Your task to perform on an android device: toggle location history Image 0: 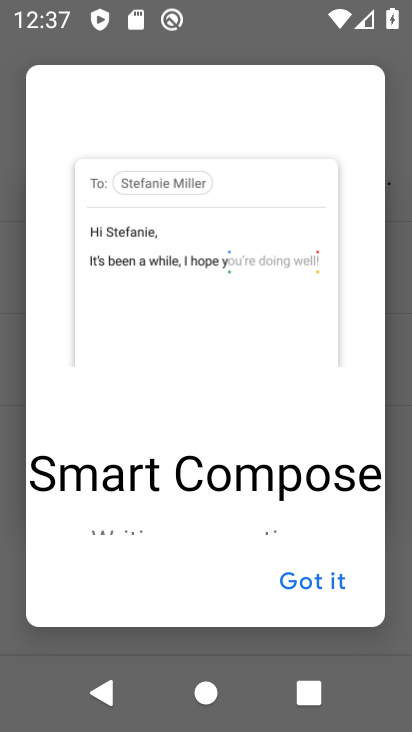
Step 0: press home button
Your task to perform on an android device: toggle location history Image 1: 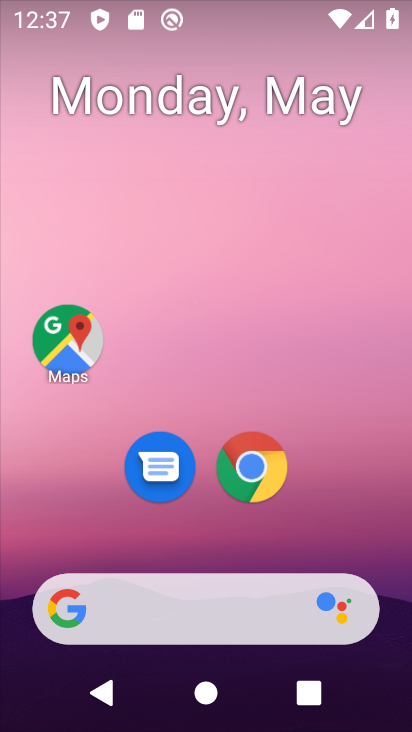
Step 1: drag from (353, 545) to (326, 123)
Your task to perform on an android device: toggle location history Image 2: 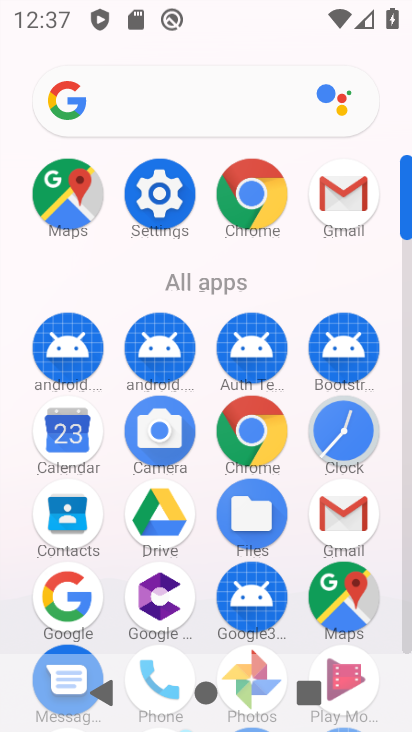
Step 2: press home button
Your task to perform on an android device: toggle location history Image 3: 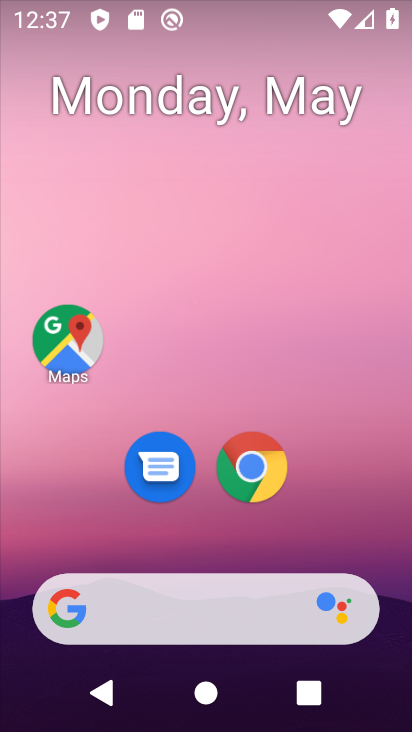
Step 3: drag from (403, 526) to (341, 152)
Your task to perform on an android device: toggle location history Image 4: 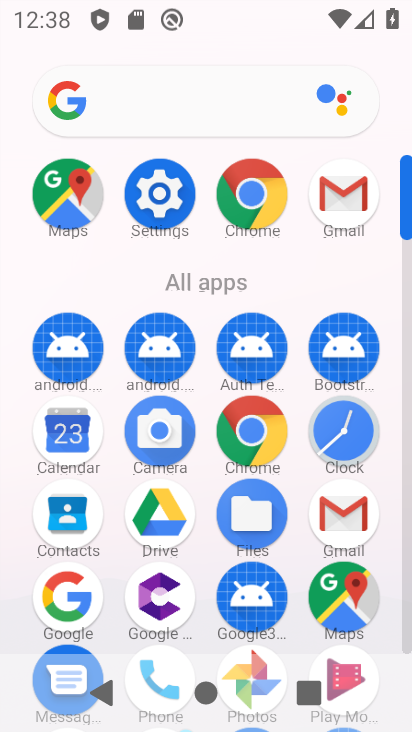
Step 4: click (345, 604)
Your task to perform on an android device: toggle location history Image 5: 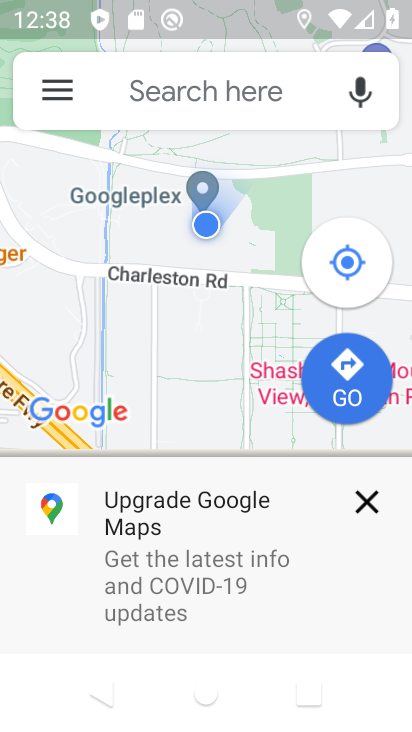
Step 5: click (56, 93)
Your task to perform on an android device: toggle location history Image 6: 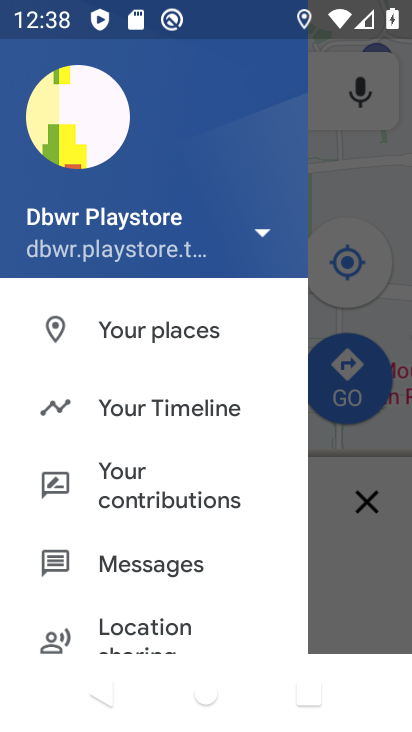
Step 6: click (98, 403)
Your task to perform on an android device: toggle location history Image 7: 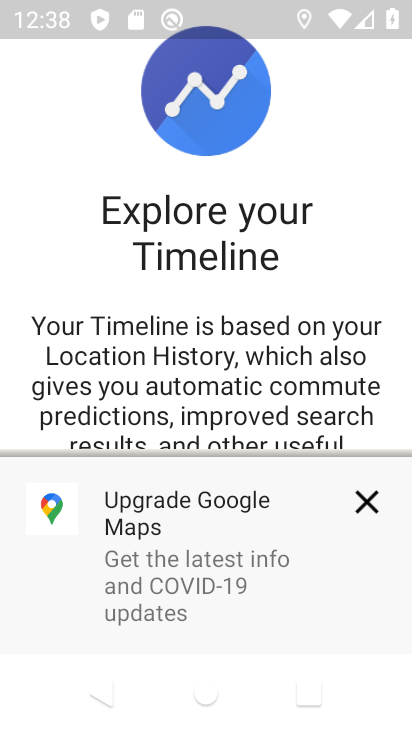
Step 7: click (360, 508)
Your task to perform on an android device: toggle location history Image 8: 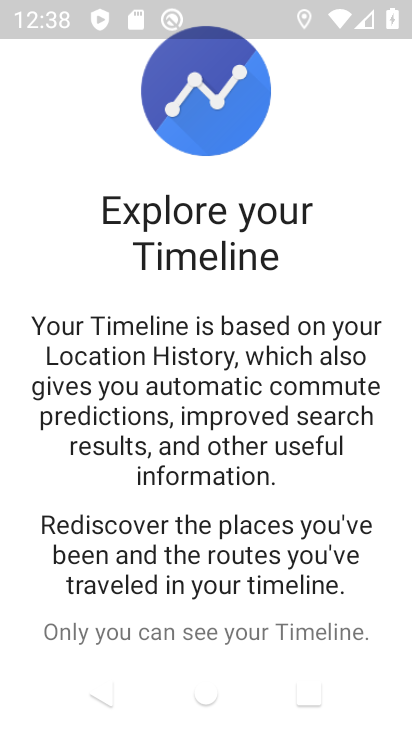
Step 8: drag from (309, 546) to (319, 199)
Your task to perform on an android device: toggle location history Image 9: 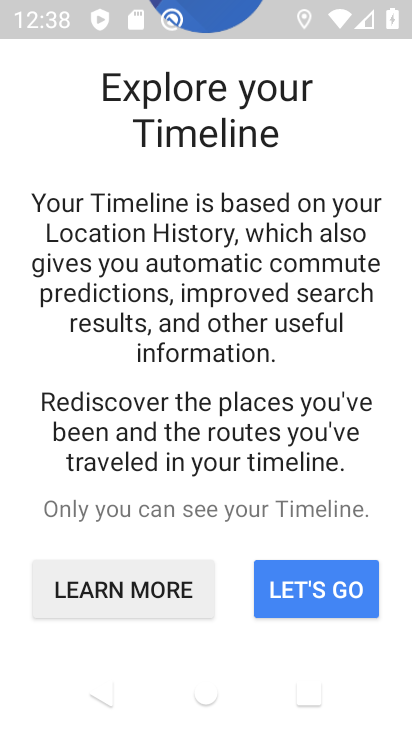
Step 9: click (304, 598)
Your task to perform on an android device: toggle location history Image 10: 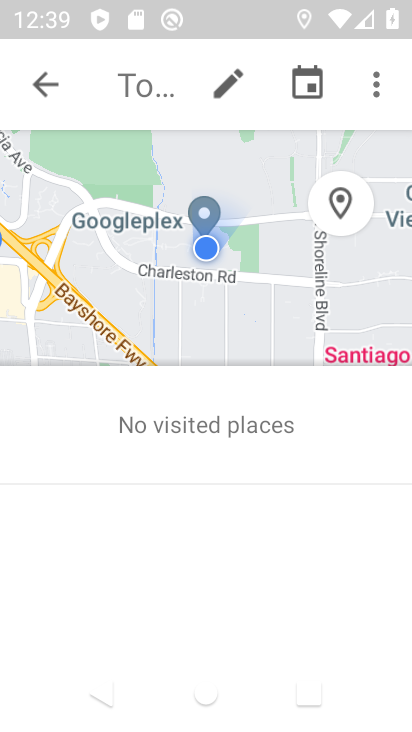
Step 10: click (368, 83)
Your task to perform on an android device: toggle location history Image 11: 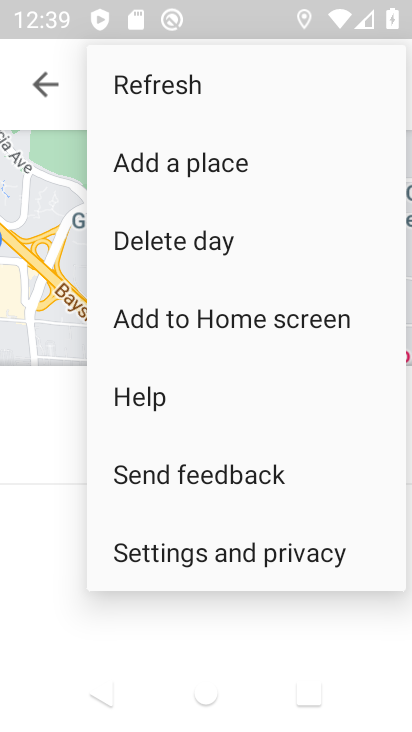
Step 11: click (317, 554)
Your task to perform on an android device: toggle location history Image 12: 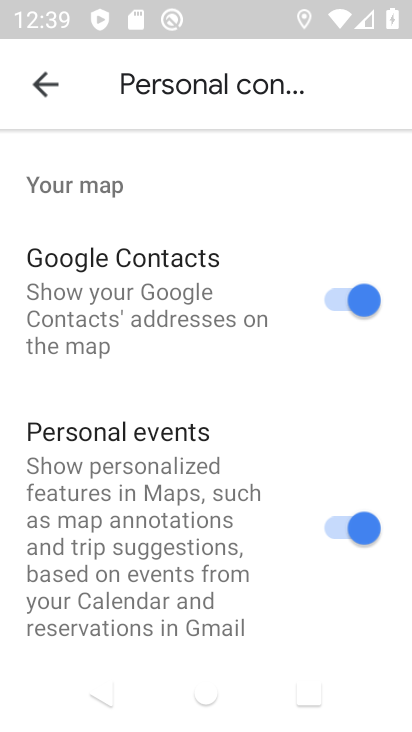
Step 12: drag from (163, 527) to (181, 207)
Your task to perform on an android device: toggle location history Image 13: 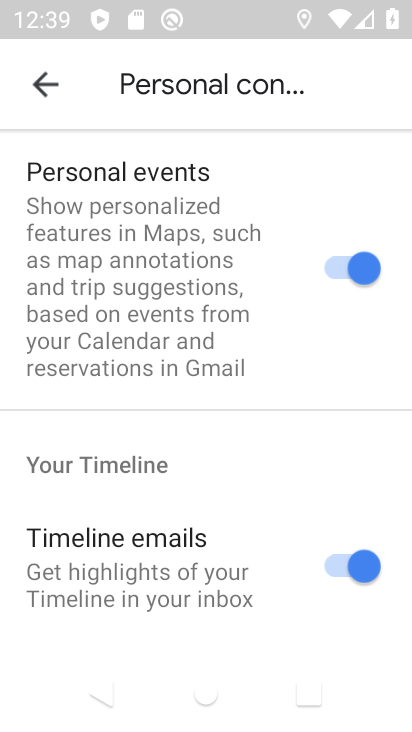
Step 13: drag from (207, 598) to (227, 210)
Your task to perform on an android device: toggle location history Image 14: 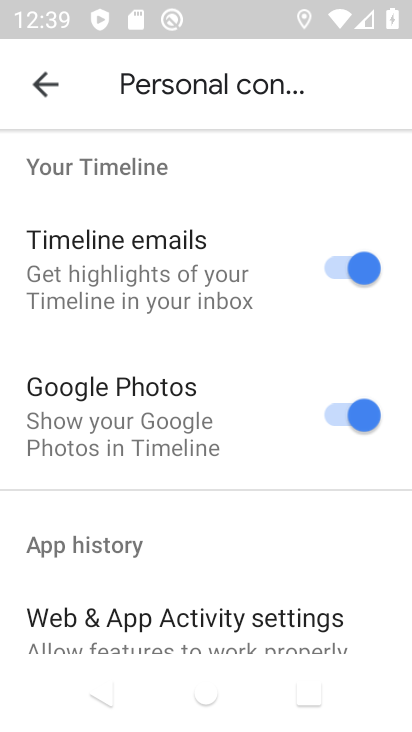
Step 14: drag from (215, 476) to (246, 195)
Your task to perform on an android device: toggle location history Image 15: 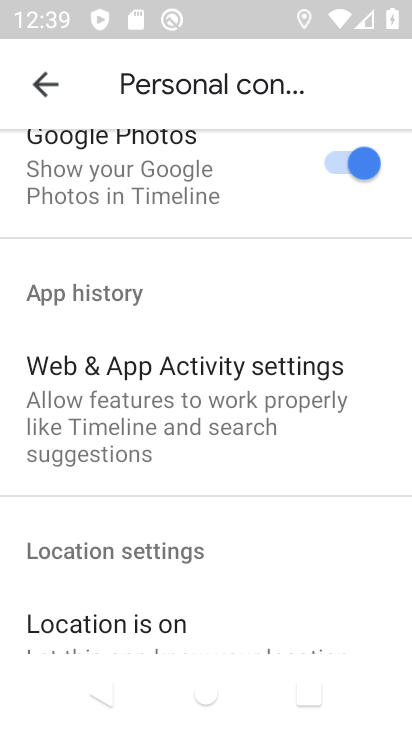
Step 15: drag from (236, 591) to (248, 323)
Your task to perform on an android device: toggle location history Image 16: 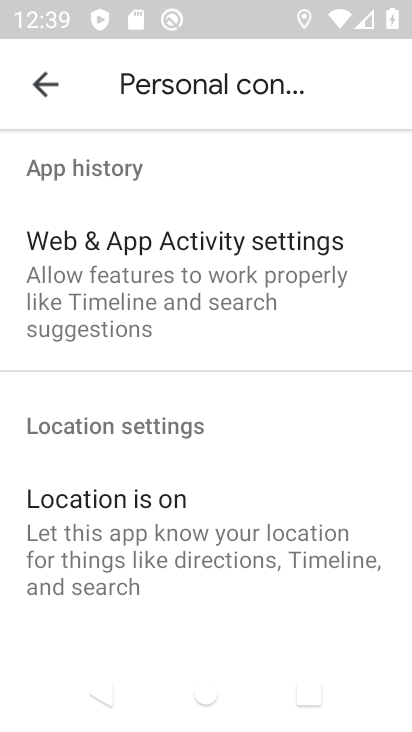
Step 16: drag from (220, 530) to (242, 249)
Your task to perform on an android device: toggle location history Image 17: 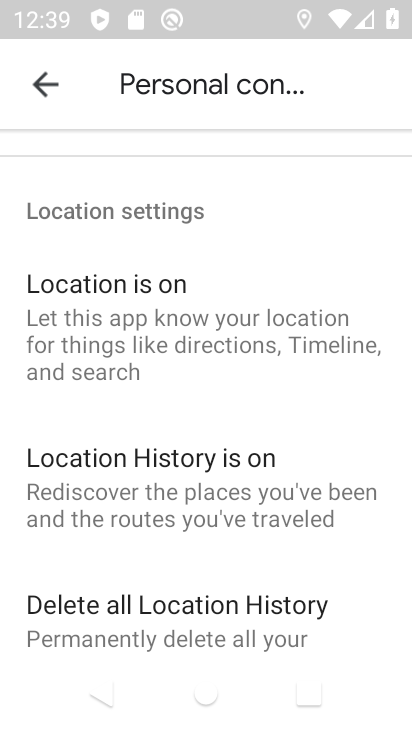
Step 17: click (226, 529)
Your task to perform on an android device: toggle location history Image 18: 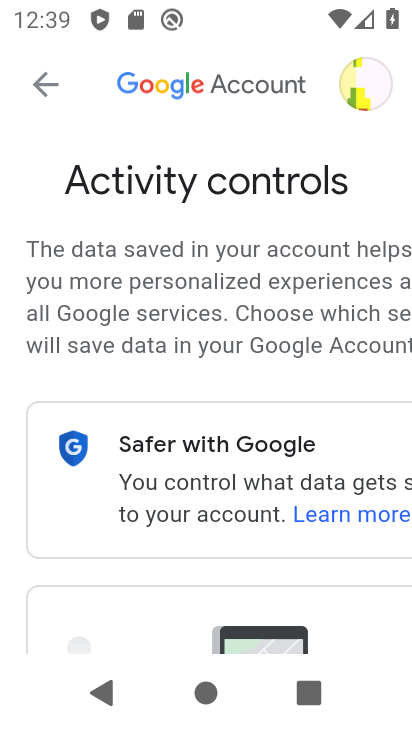
Step 18: click (293, 597)
Your task to perform on an android device: toggle location history Image 19: 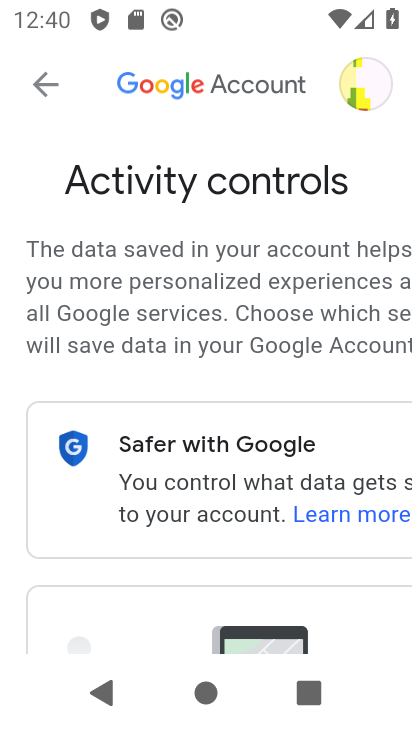
Step 19: drag from (371, 610) to (56, 119)
Your task to perform on an android device: toggle location history Image 20: 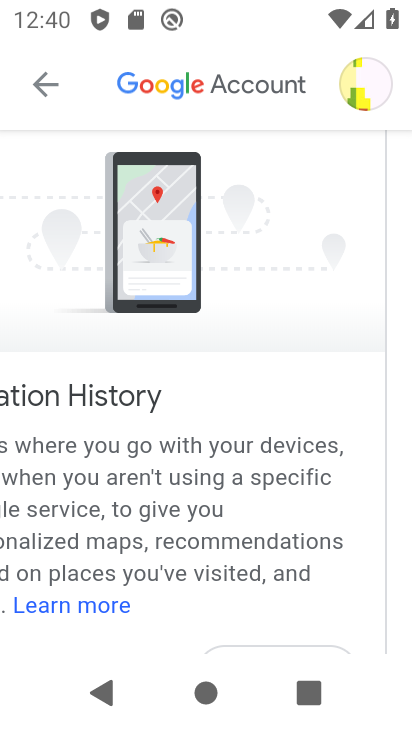
Step 20: drag from (290, 578) to (311, 249)
Your task to perform on an android device: toggle location history Image 21: 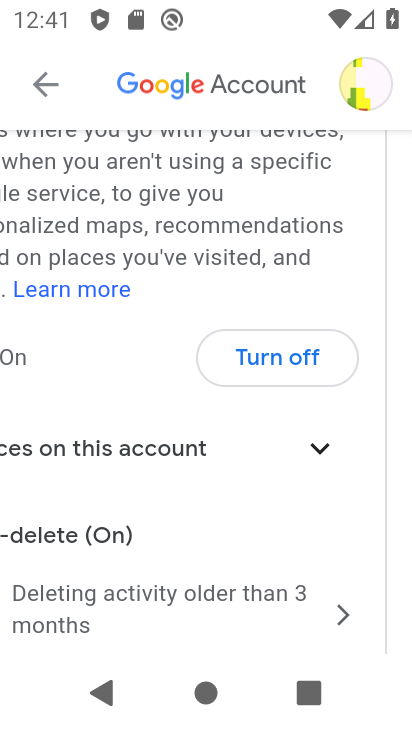
Step 21: click (269, 360)
Your task to perform on an android device: toggle location history Image 22: 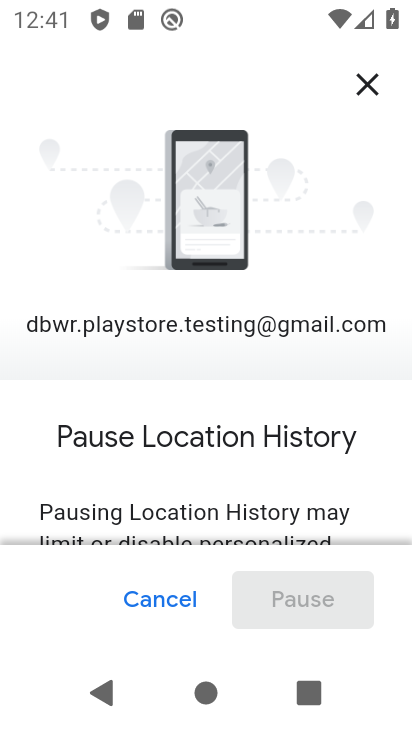
Step 22: drag from (301, 515) to (325, 35)
Your task to perform on an android device: toggle location history Image 23: 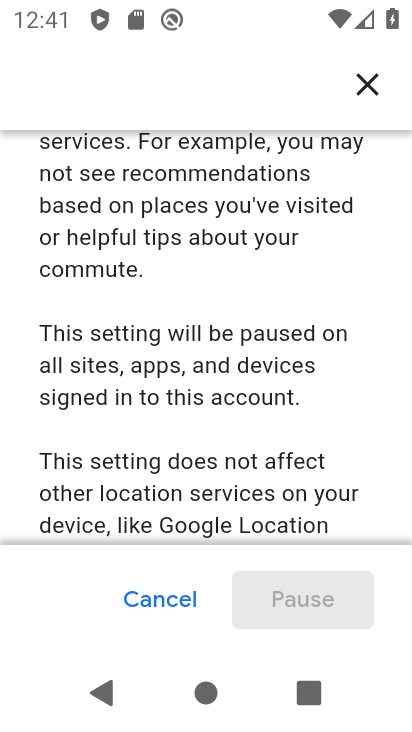
Step 23: drag from (323, 375) to (334, 91)
Your task to perform on an android device: toggle location history Image 24: 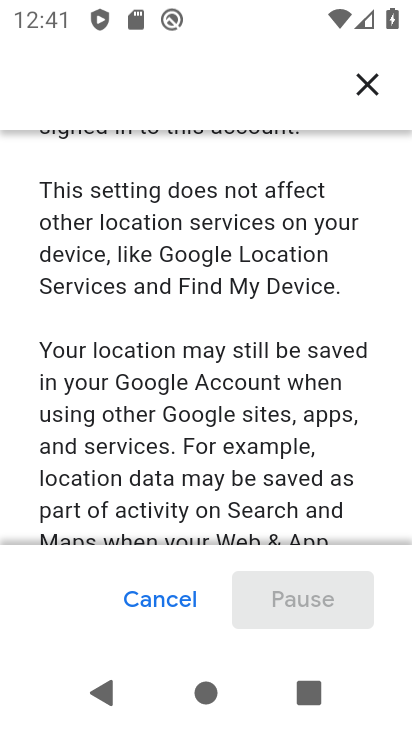
Step 24: drag from (335, 485) to (369, 96)
Your task to perform on an android device: toggle location history Image 25: 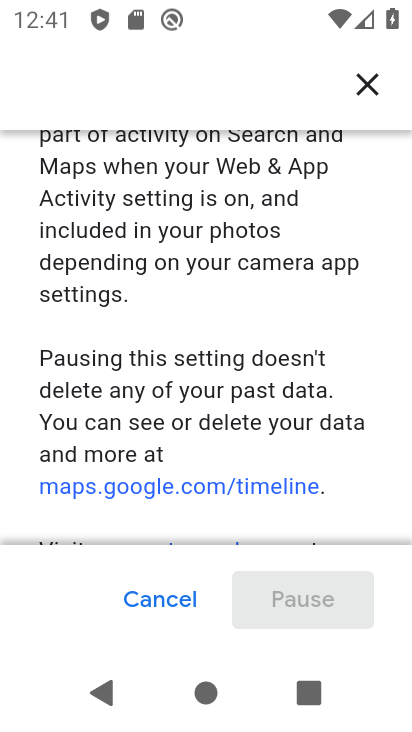
Step 25: drag from (345, 462) to (377, 130)
Your task to perform on an android device: toggle location history Image 26: 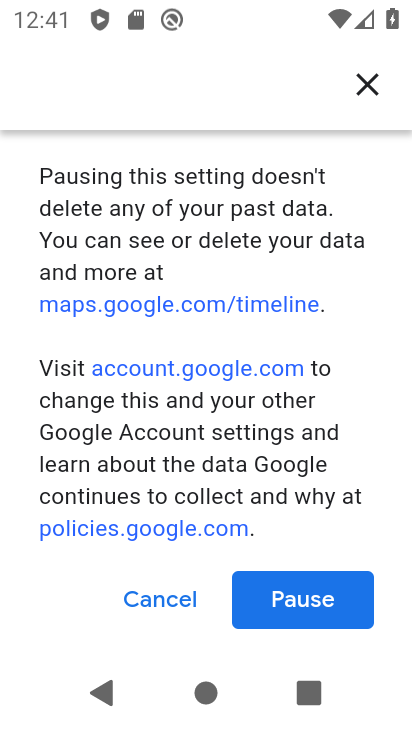
Step 26: click (342, 595)
Your task to perform on an android device: toggle location history Image 27: 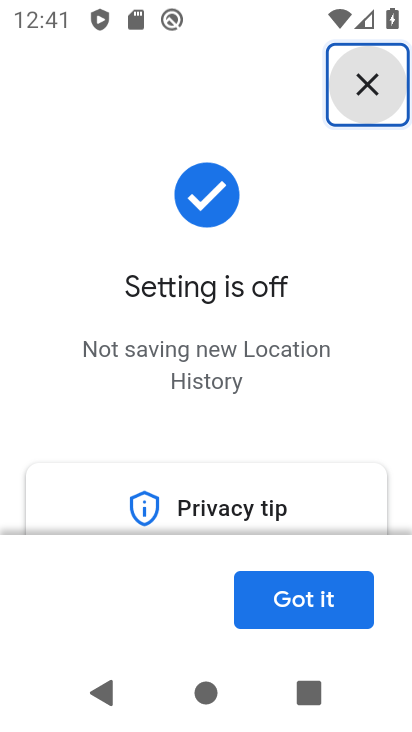
Step 27: click (342, 601)
Your task to perform on an android device: toggle location history Image 28: 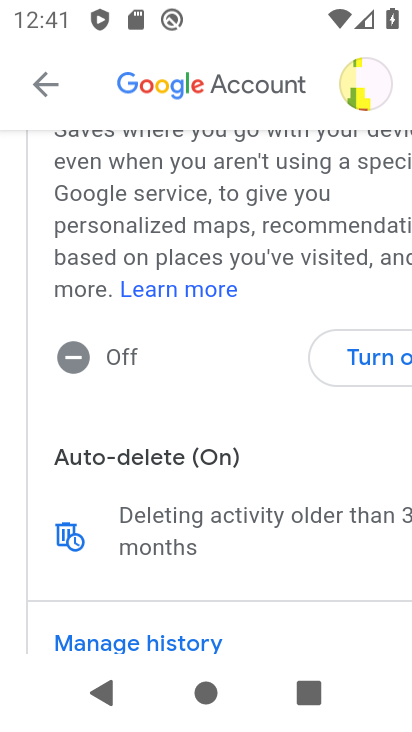
Step 28: task complete